Your task to perform on an android device: allow cookies in the chrome app Image 0: 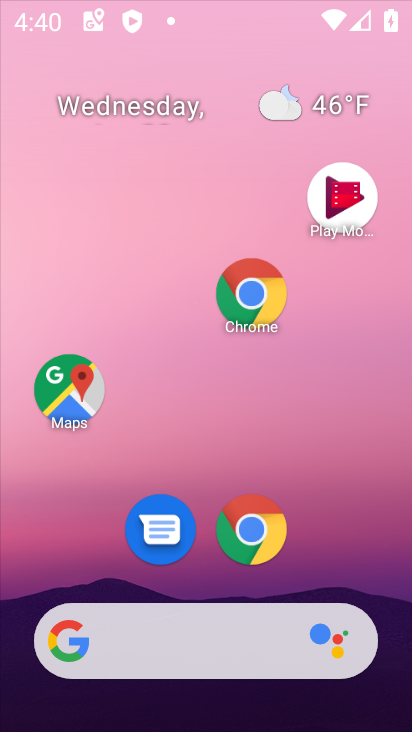
Step 0: click (70, 413)
Your task to perform on an android device: allow cookies in the chrome app Image 1: 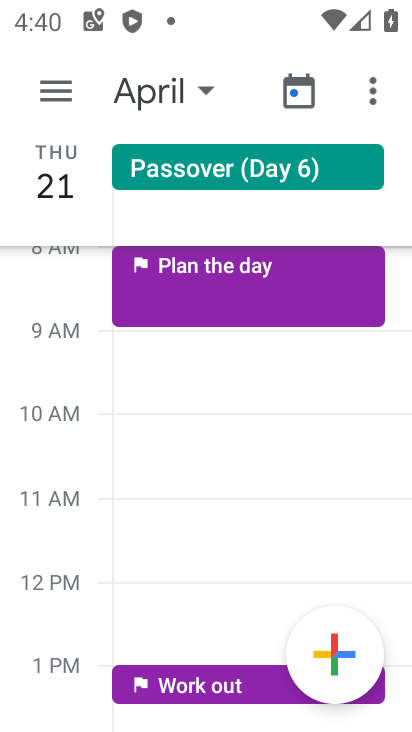
Step 1: press home button
Your task to perform on an android device: allow cookies in the chrome app Image 2: 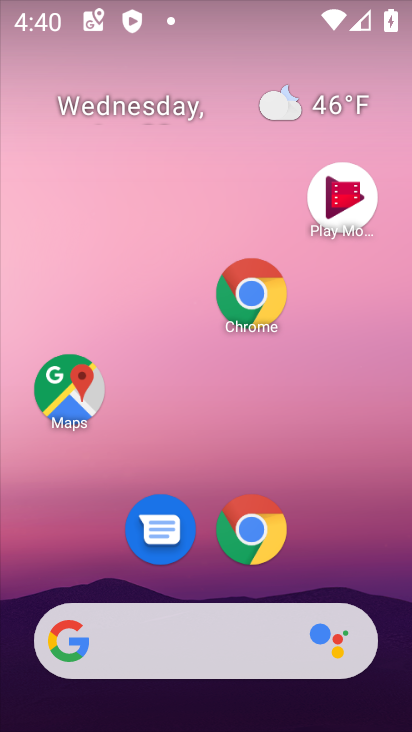
Step 2: click (244, 543)
Your task to perform on an android device: allow cookies in the chrome app Image 3: 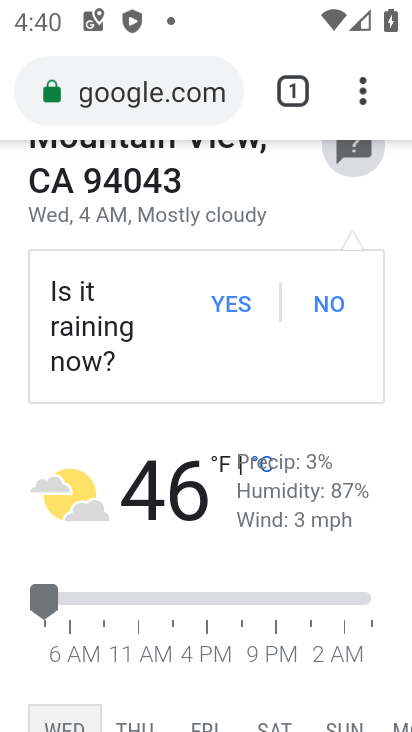
Step 3: drag from (358, 93) to (245, 558)
Your task to perform on an android device: allow cookies in the chrome app Image 4: 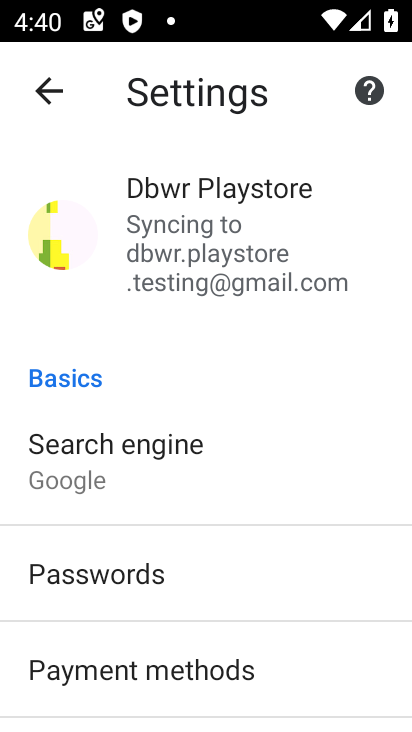
Step 4: drag from (252, 633) to (270, 210)
Your task to perform on an android device: allow cookies in the chrome app Image 5: 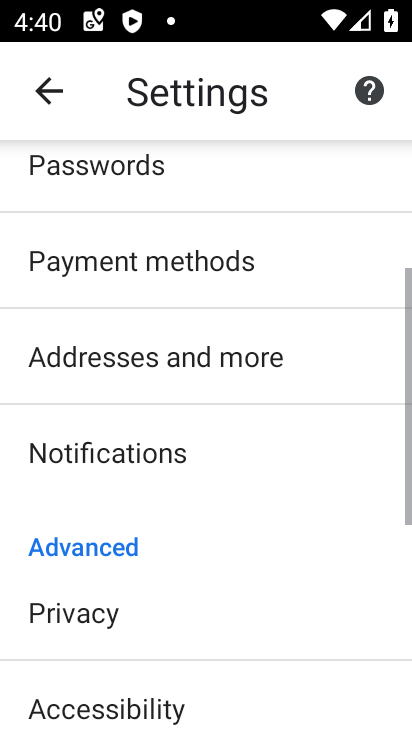
Step 5: drag from (232, 642) to (253, 297)
Your task to perform on an android device: allow cookies in the chrome app Image 6: 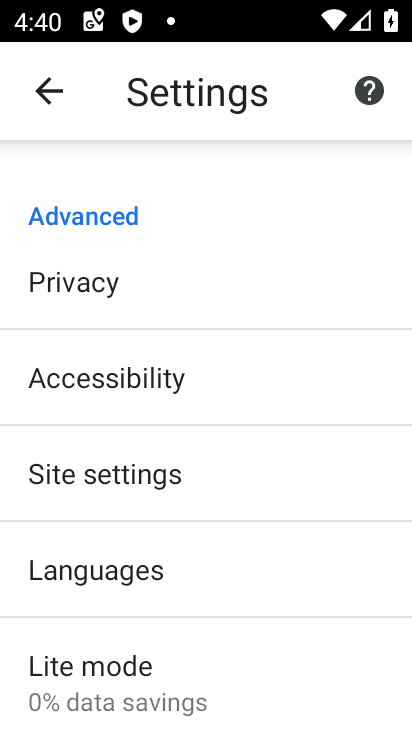
Step 6: click (174, 478)
Your task to perform on an android device: allow cookies in the chrome app Image 7: 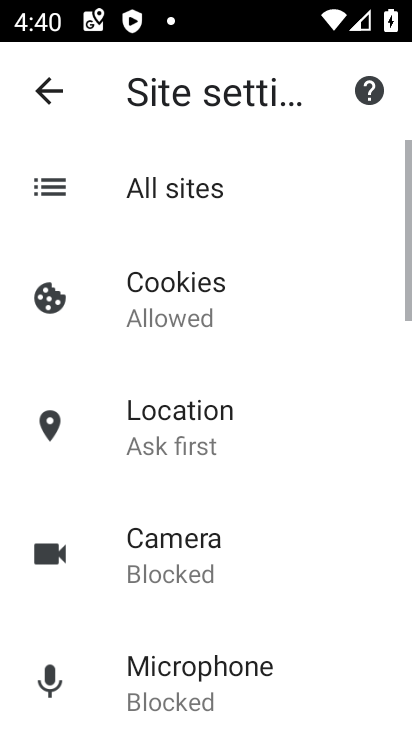
Step 7: click (201, 315)
Your task to perform on an android device: allow cookies in the chrome app Image 8: 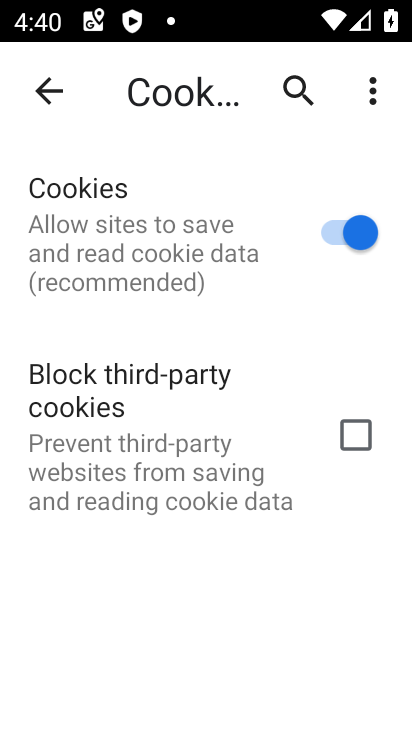
Step 8: task complete